Your task to perform on an android device: turn on sleep mode Image 0: 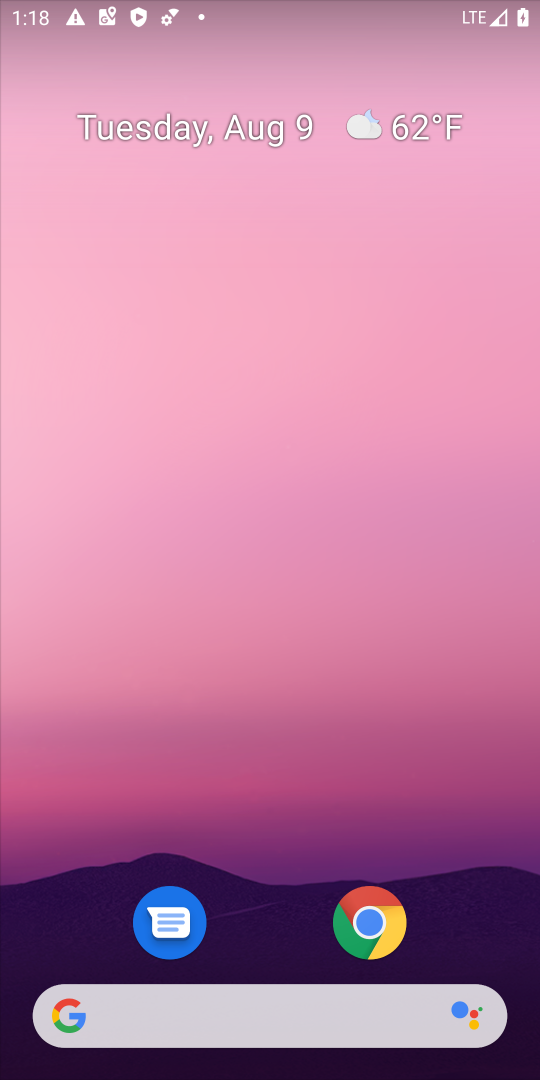
Step 0: drag from (307, 987) to (198, 25)
Your task to perform on an android device: turn on sleep mode Image 1: 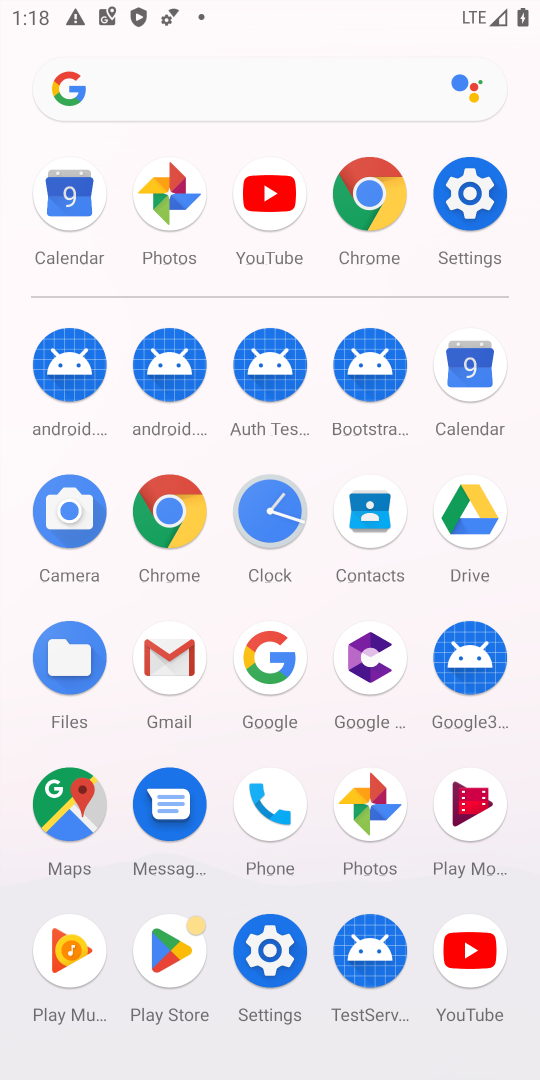
Step 1: click (489, 154)
Your task to perform on an android device: turn on sleep mode Image 2: 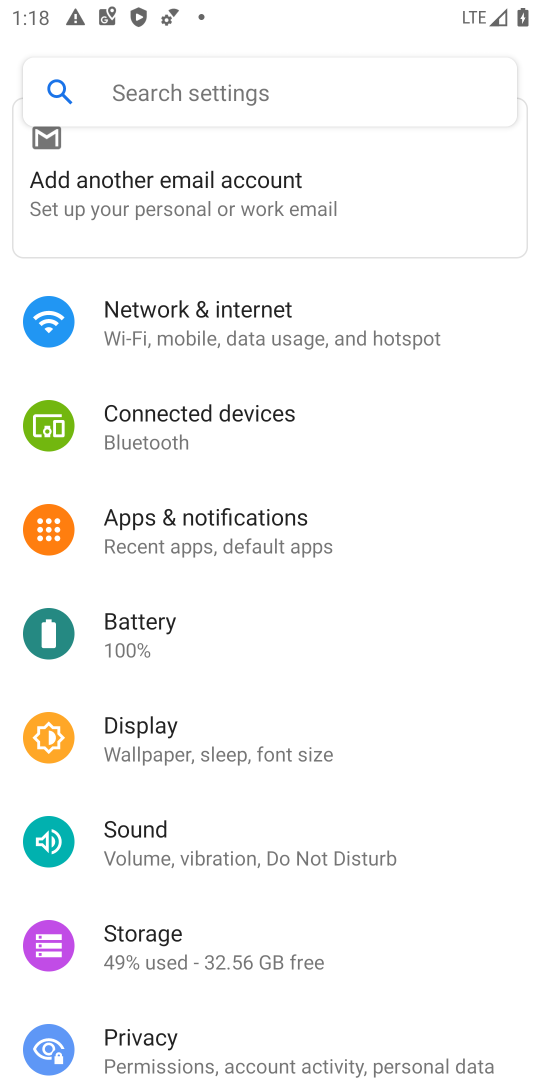
Step 2: click (192, 749)
Your task to perform on an android device: turn on sleep mode Image 3: 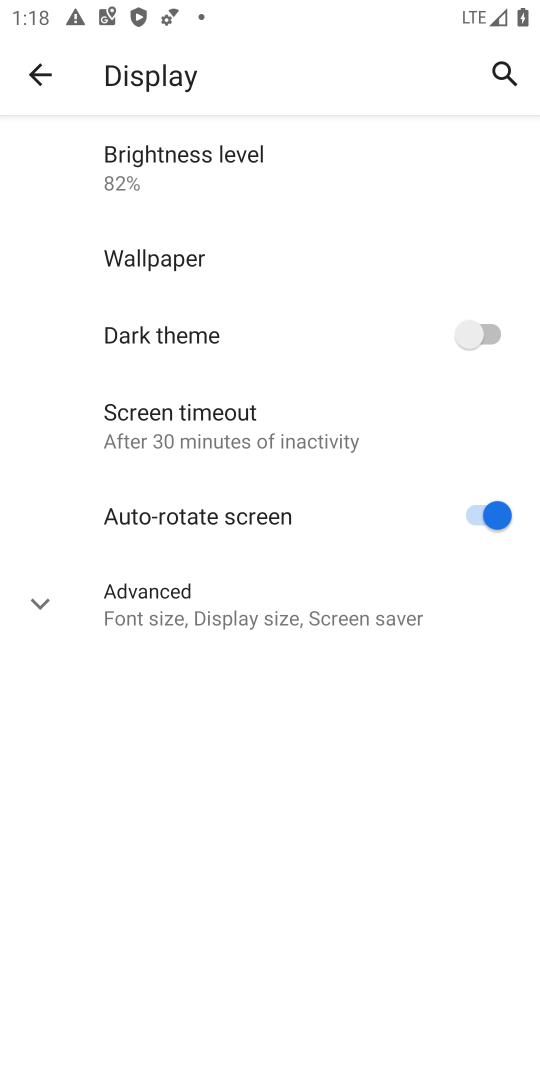
Step 3: task complete